Your task to perform on an android device: turn off data saver in the chrome app Image 0: 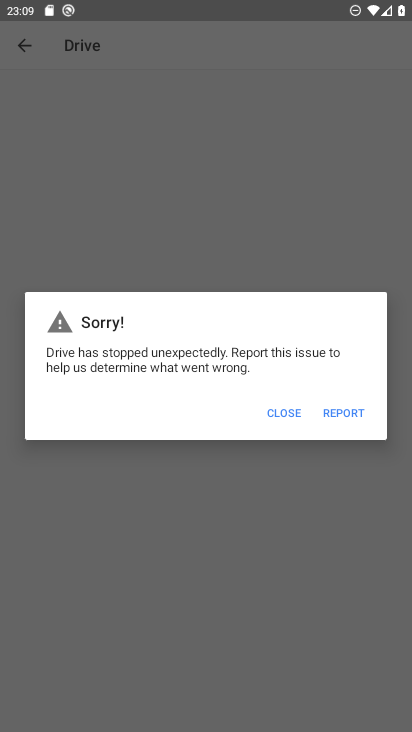
Step 0: press home button
Your task to perform on an android device: turn off data saver in the chrome app Image 1: 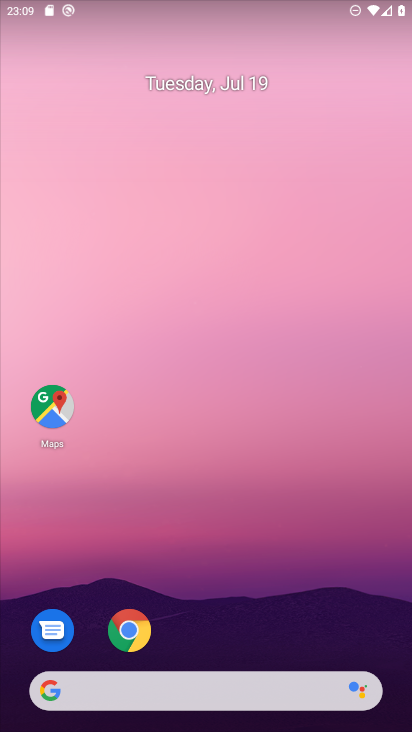
Step 1: click (137, 634)
Your task to perform on an android device: turn off data saver in the chrome app Image 2: 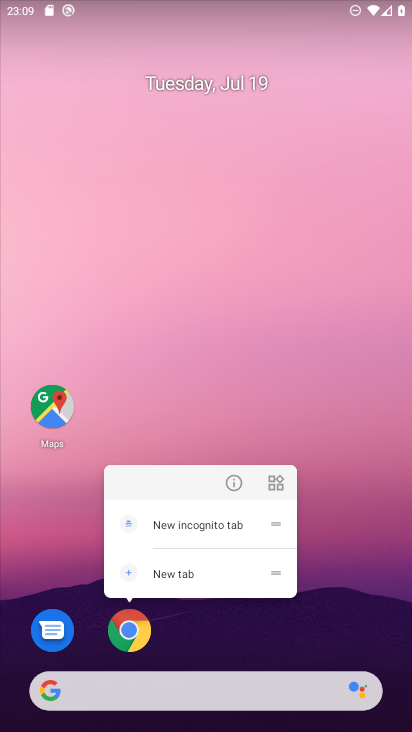
Step 2: click (137, 625)
Your task to perform on an android device: turn off data saver in the chrome app Image 3: 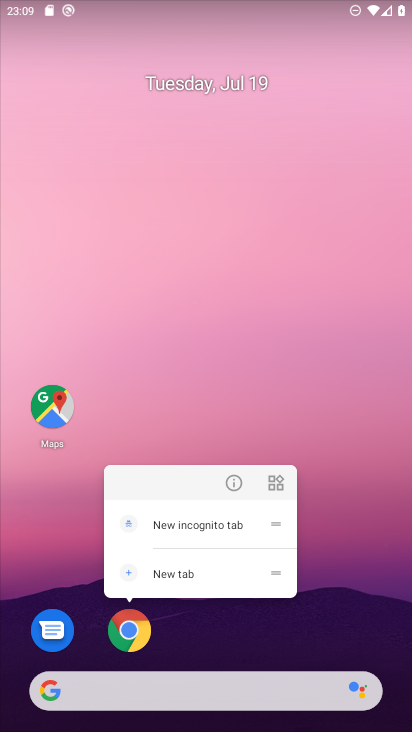
Step 3: click (137, 631)
Your task to perform on an android device: turn off data saver in the chrome app Image 4: 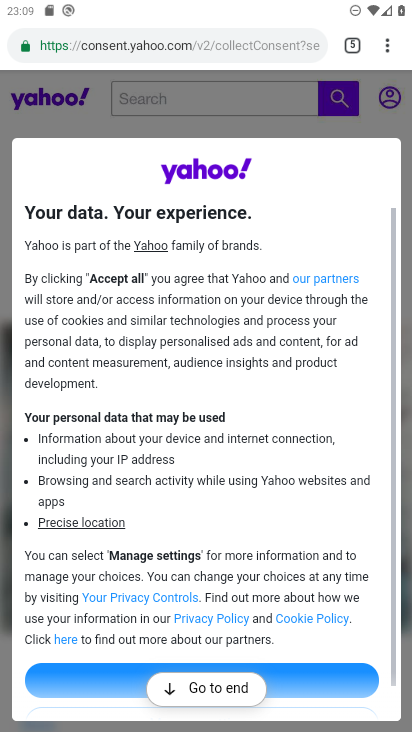
Step 4: click (382, 47)
Your task to perform on an android device: turn off data saver in the chrome app Image 5: 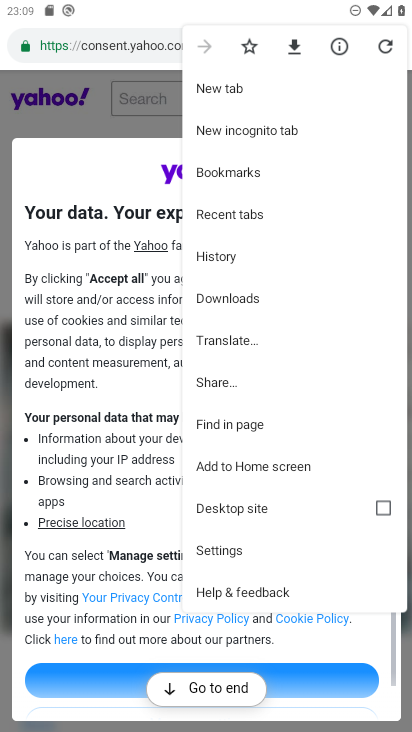
Step 5: click (236, 544)
Your task to perform on an android device: turn off data saver in the chrome app Image 6: 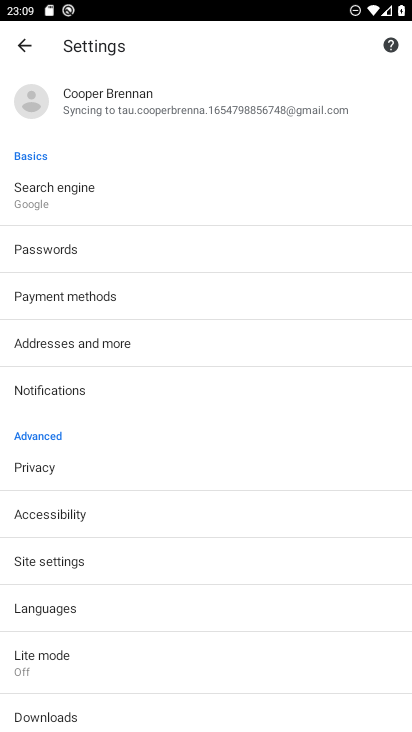
Step 6: click (61, 651)
Your task to perform on an android device: turn off data saver in the chrome app Image 7: 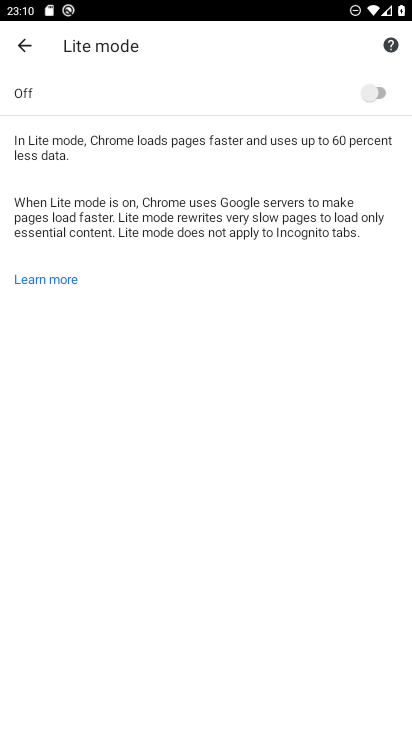
Step 7: task complete